Your task to perform on an android device: Play the last video I watched on Youtube Image 0: 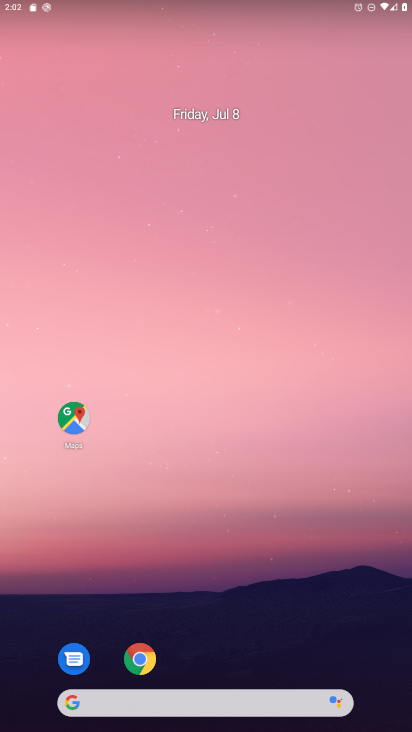
Step 0: drag from (249, 650) to (260, 51)
Your task to perform on an android device: Play the last video I watched on Youtube Image 1: 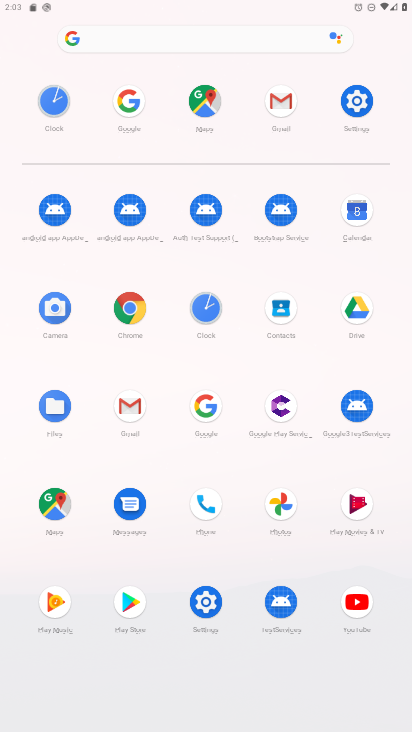
Step 1: click (356, 602)
Your task to perform on an android device: Play the last video I watched on Youtube Image 2: 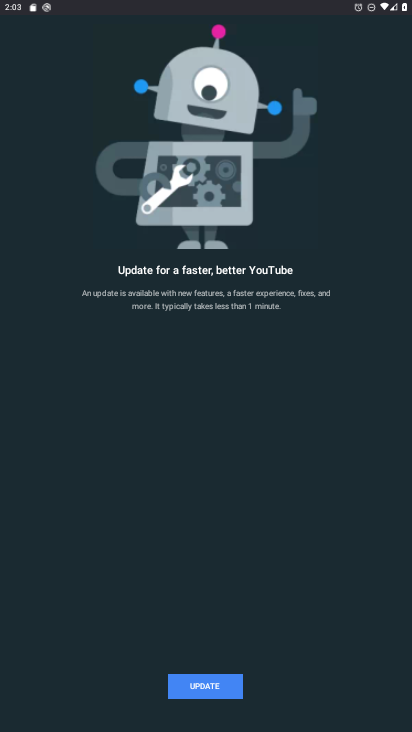
Step 2: click (200, 685)
Your task to perform on an android device: Play the last video I watched on Youtube Image 3: 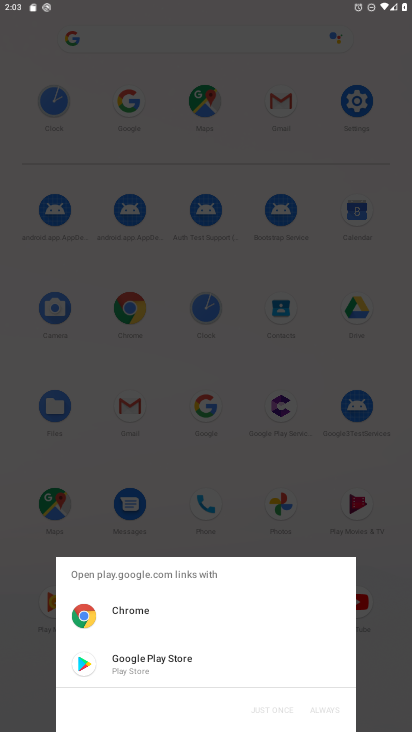
Step 3: click (145, 668)
Your task to perform on an android device: Play the last video I watched on Youtube Image 4: 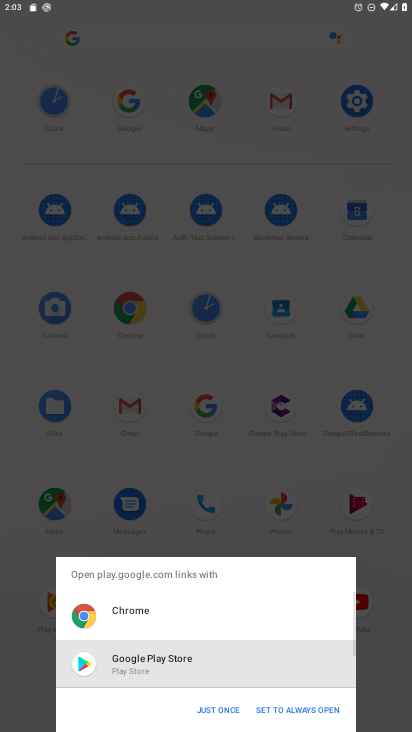
Step 4: click (203, 705)
Your task to perform on an android device: Play the last video I watched on Youtube Image 5: 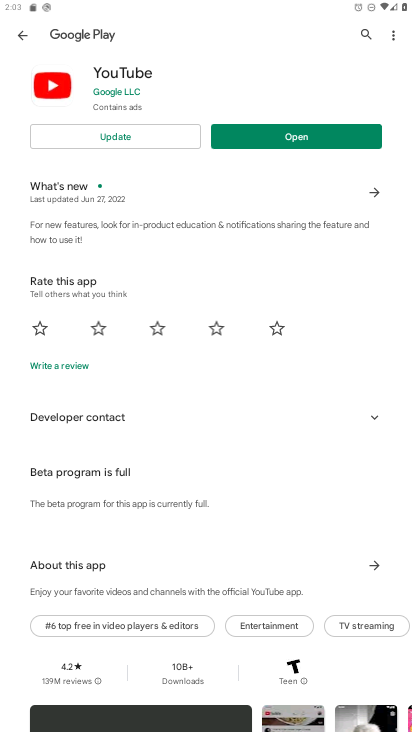
Step 5: click (109, 136)
Your task to perform on an android device: Play the last video I watched on Youtube Image 6: 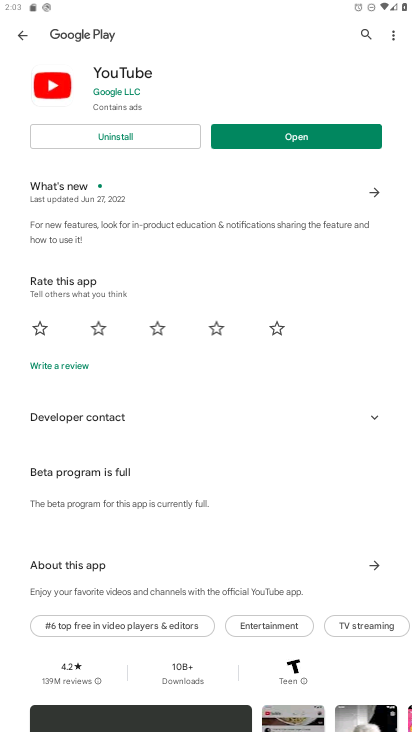
Step 6: click (305, 140)
Your task to perform on an android device: Play the last video I watched on Youtube Image 7: 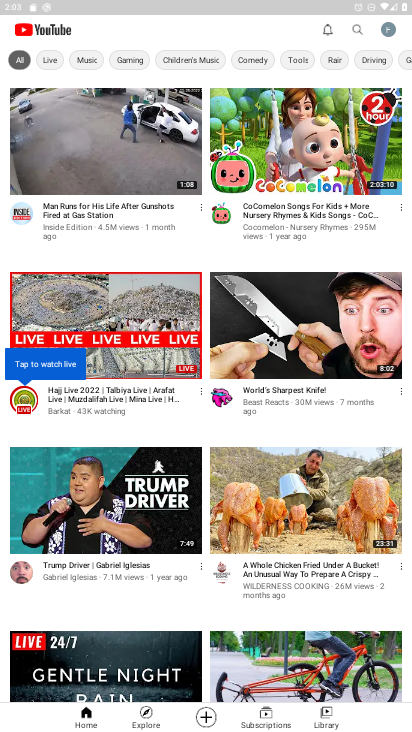
Step 7: click (325, 713)
Your task to perform on an android device: Play the last video I watched on Youtube Image 8: 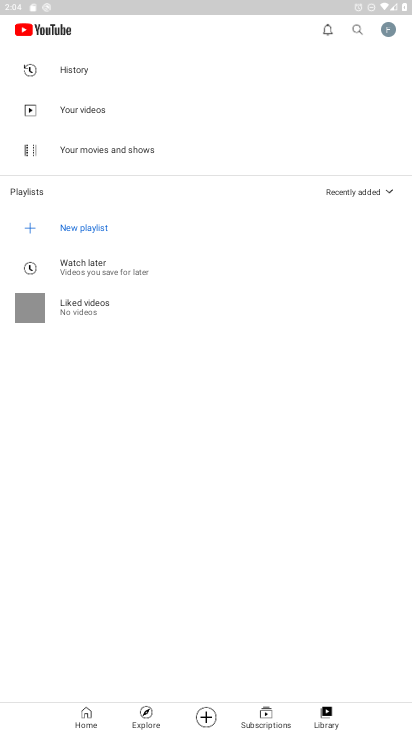
Step 8: click (75, 74)
Your task to perform on an android device: Play the last video I watched on Youtube Image 9: 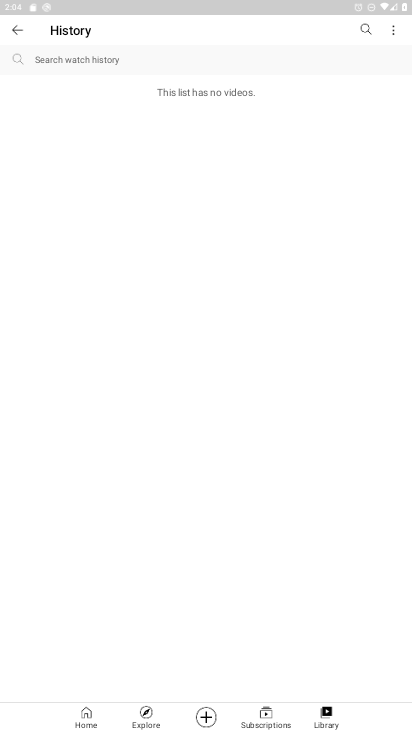
Step 9: task complete